Your task to perform on an android device: Go to sound settings Image 0: 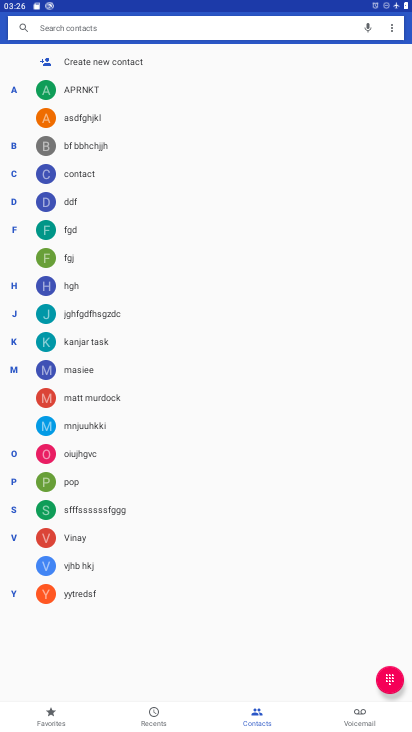
Step 0: press home button
Your task to perform on an android device: Go to sound settings Image 1: 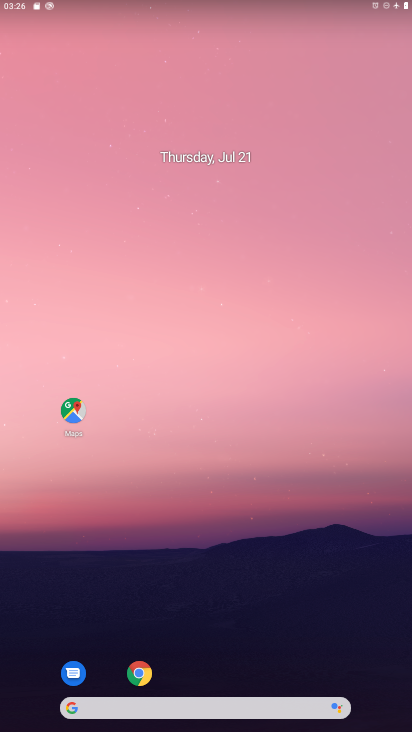
Step 1: drag from (142, 662) to (167, 284)
Your task to perform on an android device: Go to sound settings Image 2: 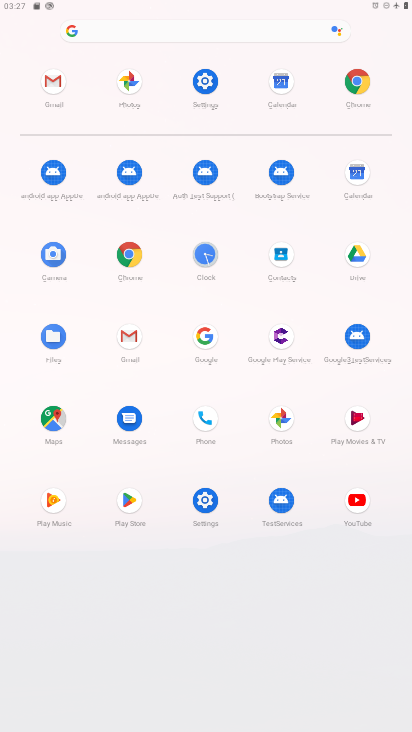
Step 2: click (215, 75)
Your task to perform on an android device: Go to sound settings Image 3: 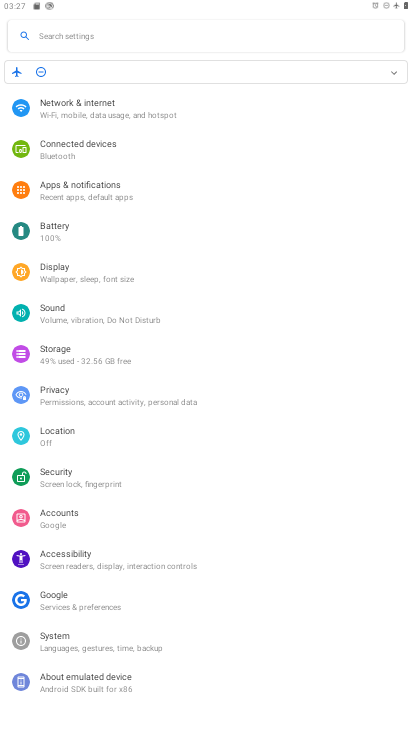
Step 3: click (78, 309)
Your task to perform on an android device: Go to sound settings Image 4: 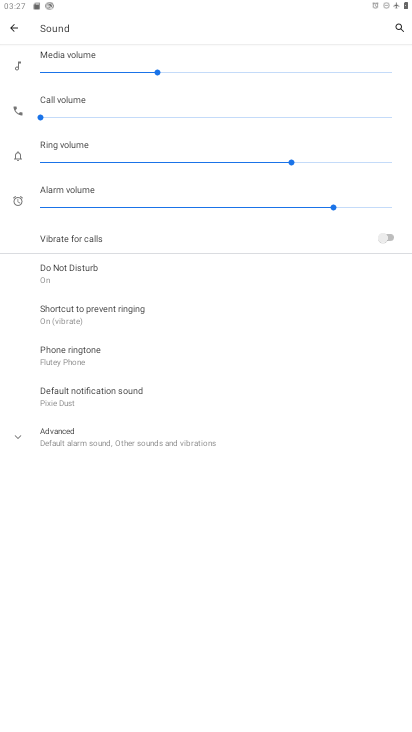
Step 4: task complete